Your task to perform on an android device: open a bookmark in the chrome app Image 0: 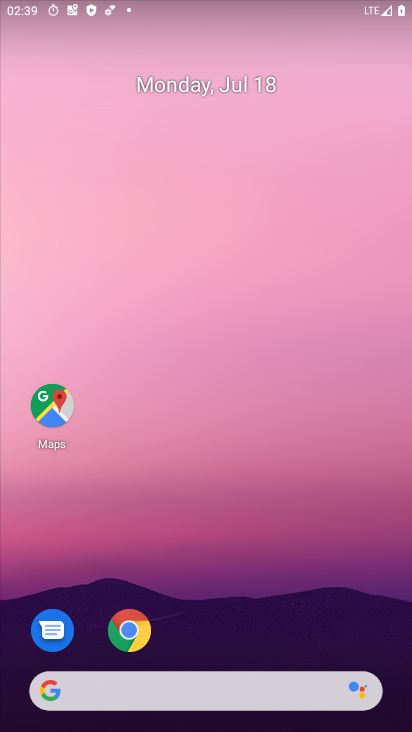
Step 0: click (140, 643)
Your task to perform on an android device: open a bookmark in the chrome app Image 1: 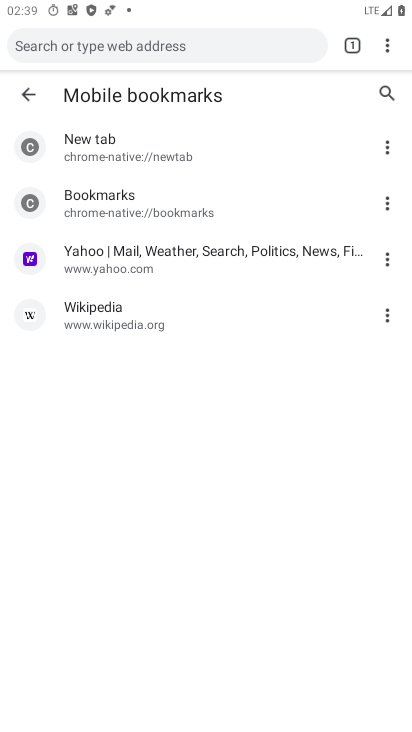
Step 1: click (143, 318)
Your task to perform on an android device: open a bookmark in the chrome app Image 2: 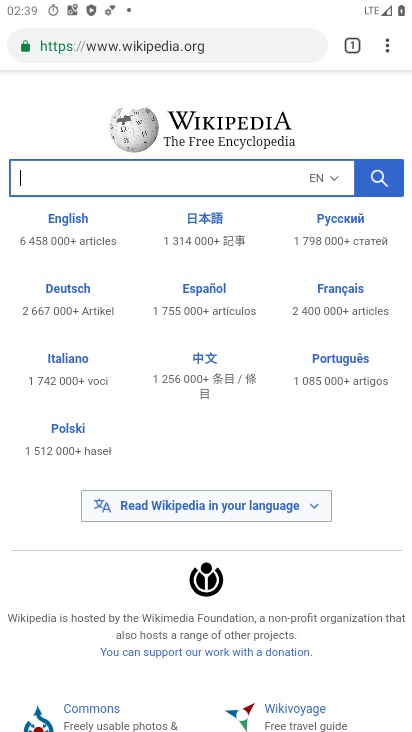
Step 2: click (143, 318)
Your task to perform on an android device: open a bookmark in the chrome app Image 3: 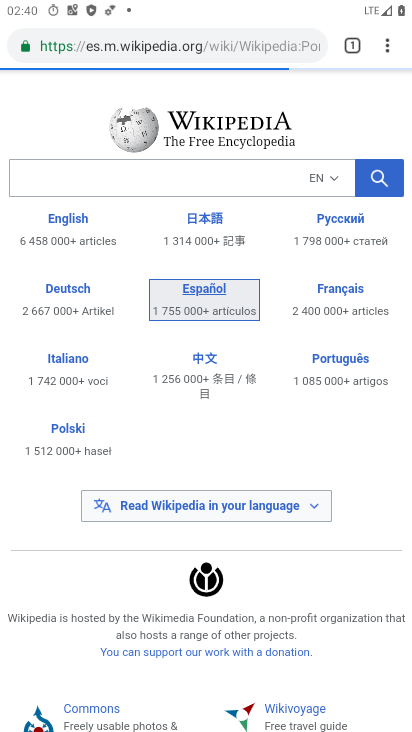
Step 3: click (128, 329)
Your task to perform on an android device: open a bookmark in the chrome app Image 4: 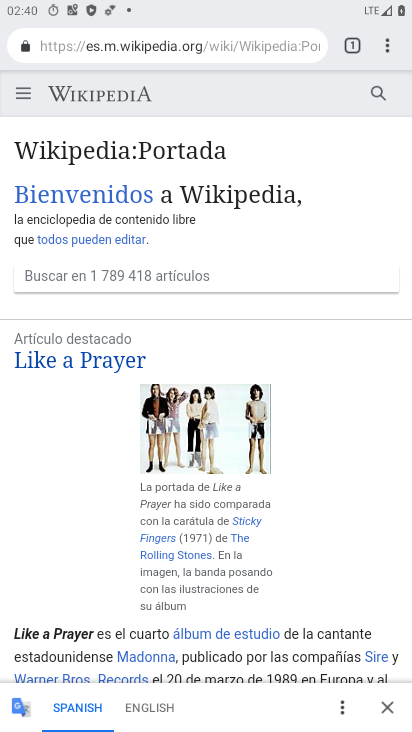
Step 4: task complete